Your task to perform on an android device: Open accessibility settings Image 0: 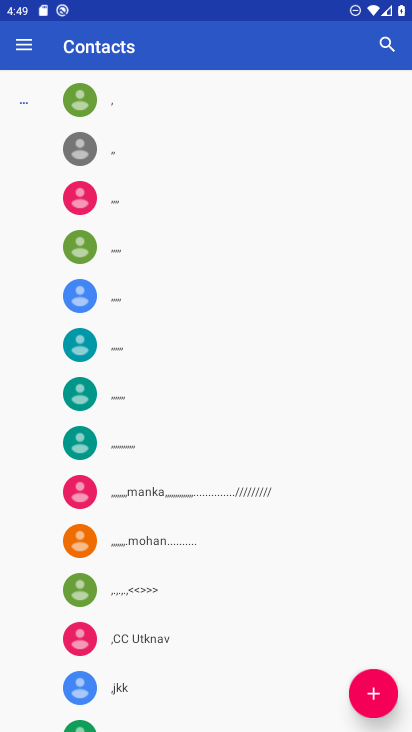
Step 0: press home button
Your task to perform on an android device: Open accessibility settings Image 1: 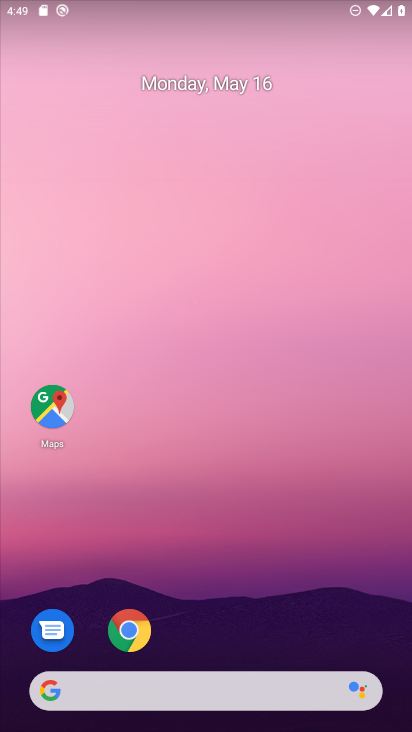
Step 1: drag from (242, 569) to (292, 15)
Your task to perform on an android device: Open accessibility settings Image 2: 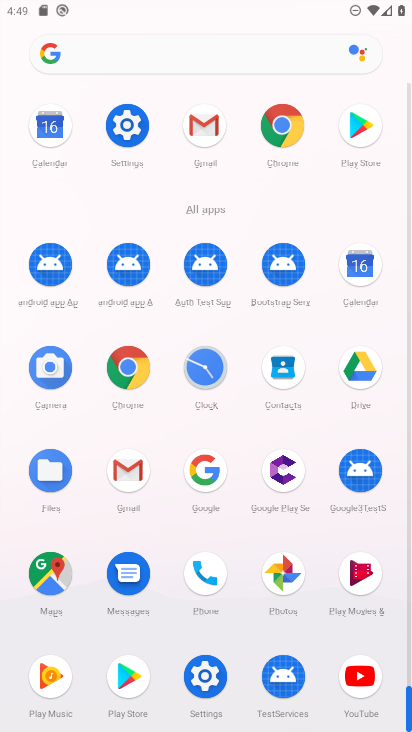
Step 2: click (150, 129)
Your task to perform on an android device: Open accessibility settings Image 3: 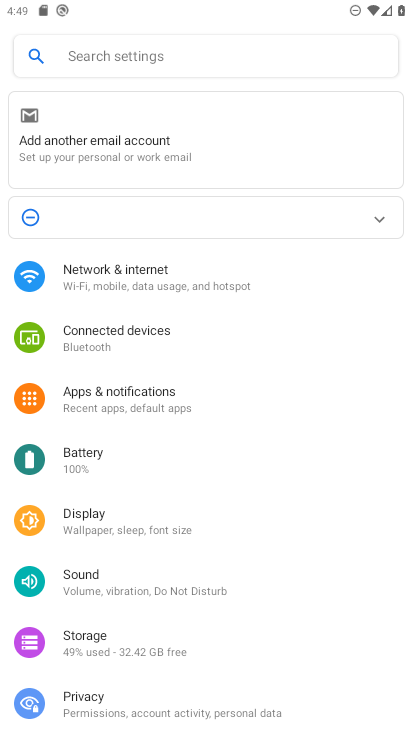
Step 3: drag from (213, 575) to (251, 299)
Your task to perform on an android device: Open accessibility settings Image 4: 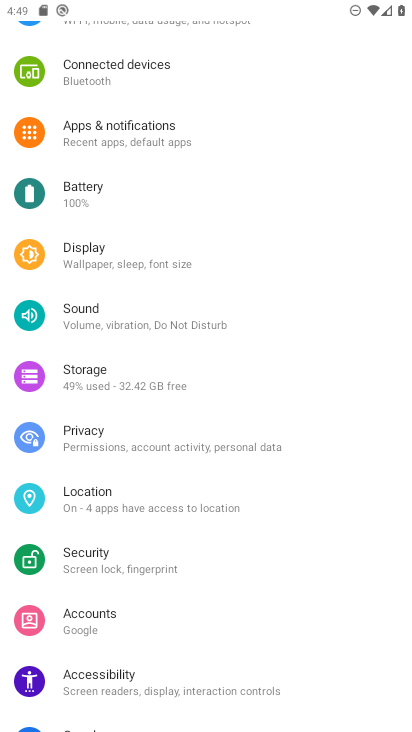
Step 4: click (145, 671)
Your task to perform on an android device: Open accessibility settings Image 5: 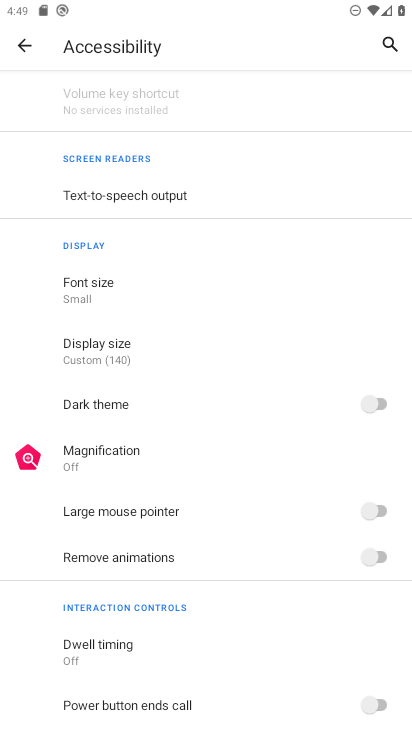
Step 5: task complete